Your task to perform on an android device: Go to wifi settings Image 0: 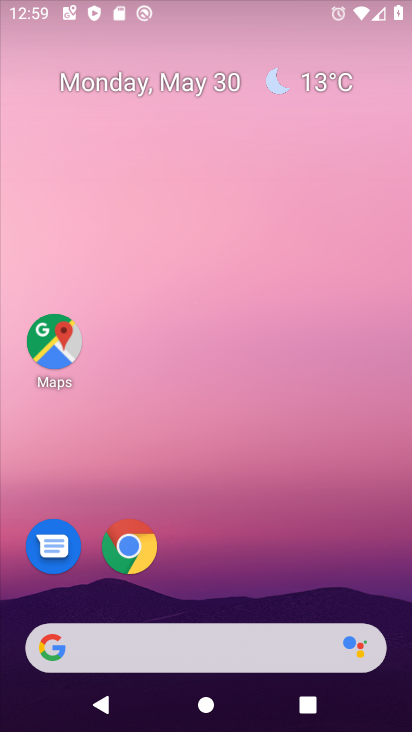
Step 0: press home button
Your task to perform on an android device: Go to wifi settings Image 1: 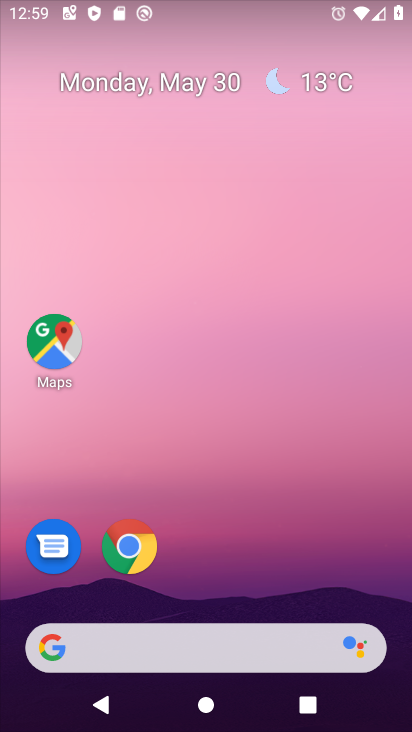
Step 1: drag from (253, 608) to (257, 40)
Your task to perform on an android device: Go to wifi settings Image 2: 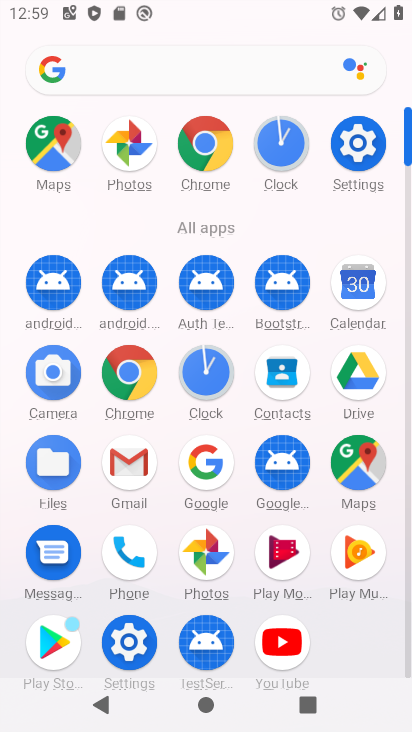
Step 2: click (345, 145)
Your task to perform on an android device: Go to wifi settings Image 3: 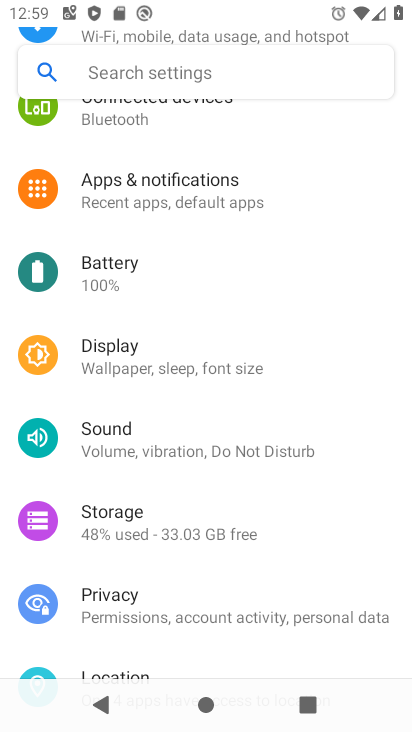
Step 3: drag from (221, 136) to (218, 631)
Your task to perform on an android device: Go to wifi settings Image 4: 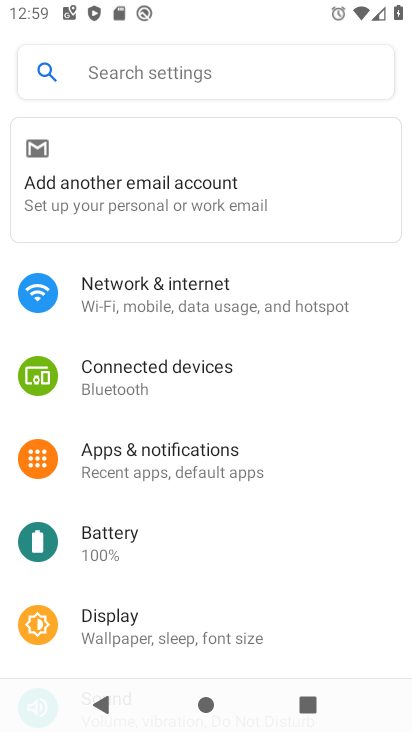
Step 4: click (140, 317)
Your task to perform on an android device: Go to wifi settings Image 5: 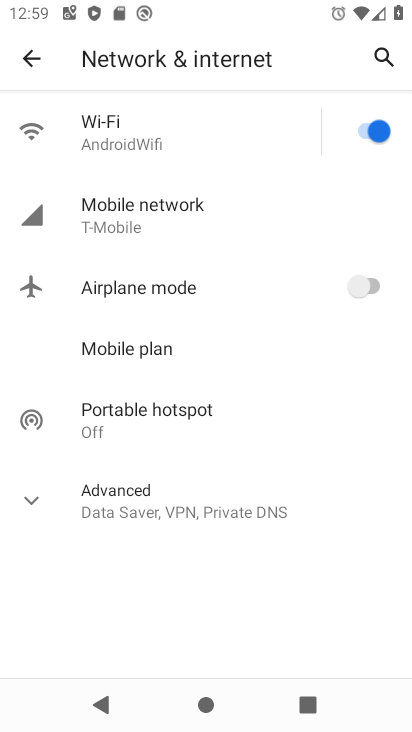
Step 5: click (105, 126)
Your task to perform on an android device: Go to wifi settings Image 6: 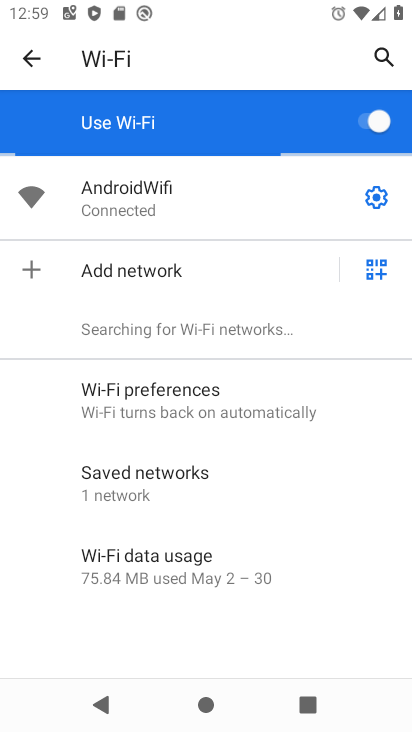
Step 6: task complete